Your task to perform on an android device: change the upload size in google photos Image 0: 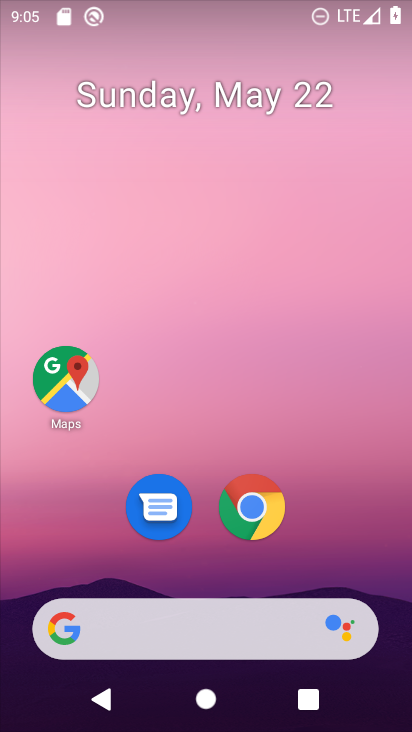
Step 0: drag from (214, 501) to (206, 31)
Your task to perform on an android device: change the upload size in google photos Image 1: 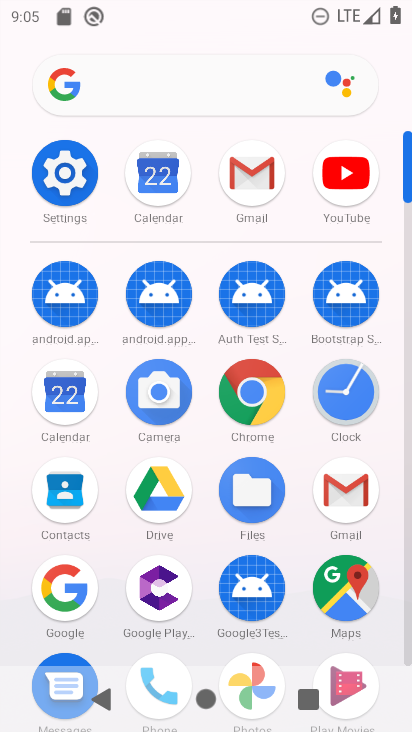
Step 1: click (274, 669)
Your task to perform on an android device: change the upload size in google photos Image 2: 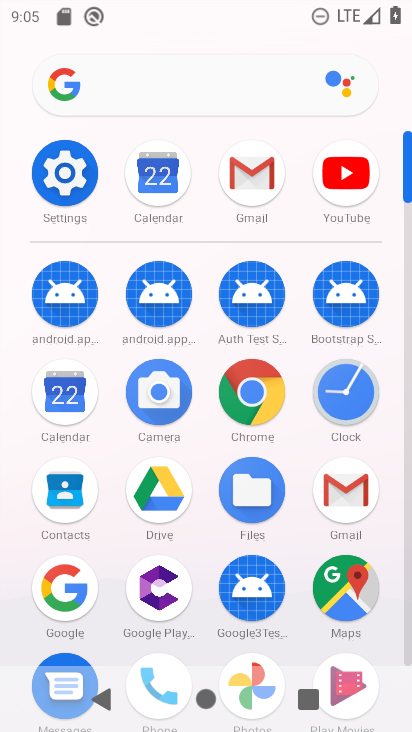
Step 2: click (252, 663)
Your task to perform on an android device: change the upload size in google photos Image 3: 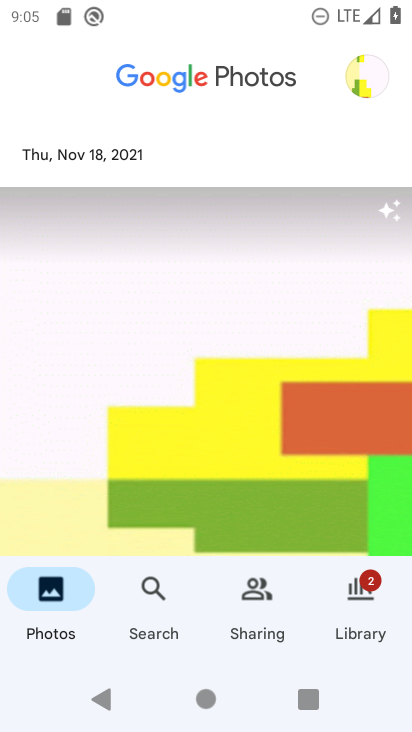
Step 3: click (376, 84)
Your task to perform on an android device: change the upload size in google photos Image 4: 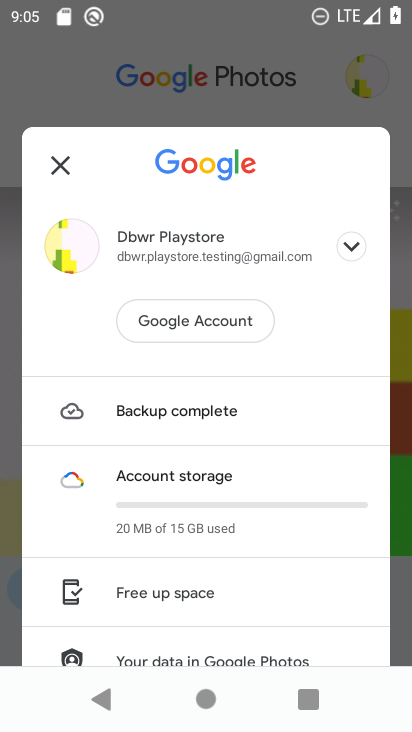
Step 4: drag from (232, 580) to (226, 22)
Your task to perform on an android device: change the upload size in google photos Image 5: 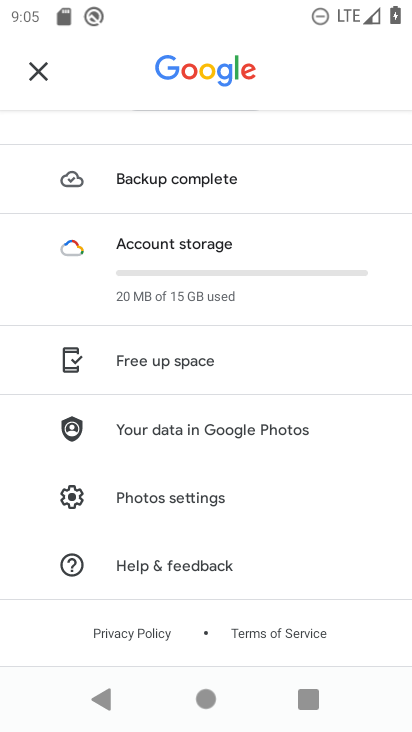
Step 5: click (228, 512)
Your task to perform on an android device: change the upload size in google photos Image 6: 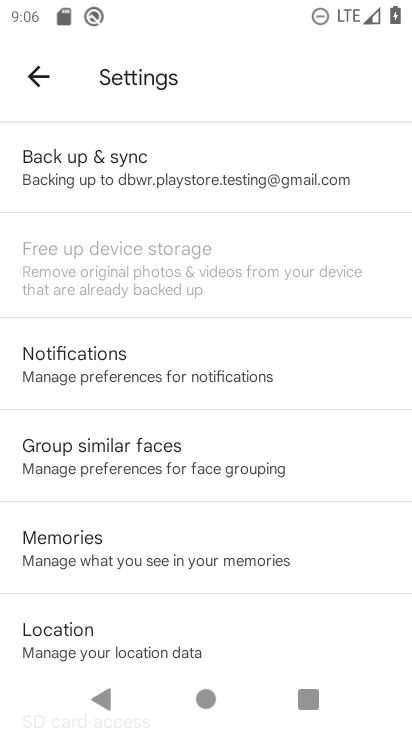
Step 6: drag from (177, 634) to (196, 20)
Your task to perform on an android device: change the upload size in google photos Image 7: 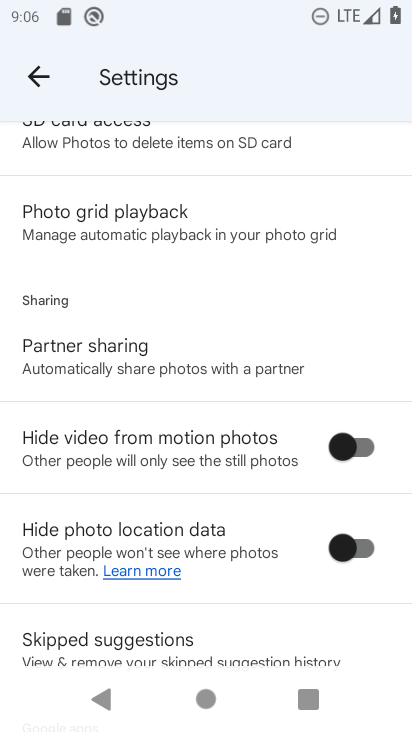
Step 7: drag from (349, 194) to (267, 663)
Your task to perform on an android device: change the upload size in google photos Image 8: 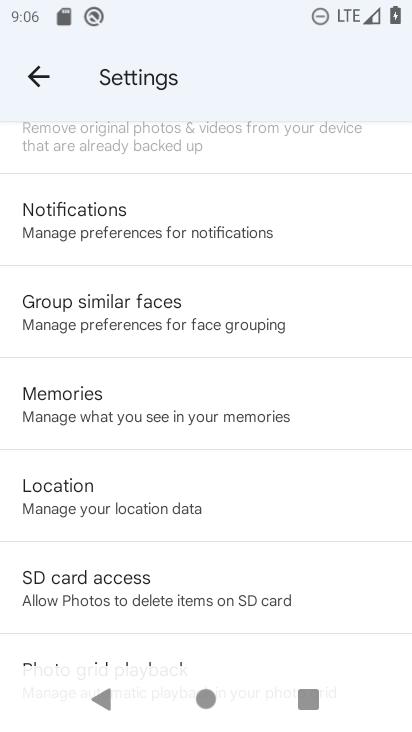
Step 8: drag from (232, 165) to (186, 627)
Your task to perform on an android device: change the upload size in google photos Image 9: 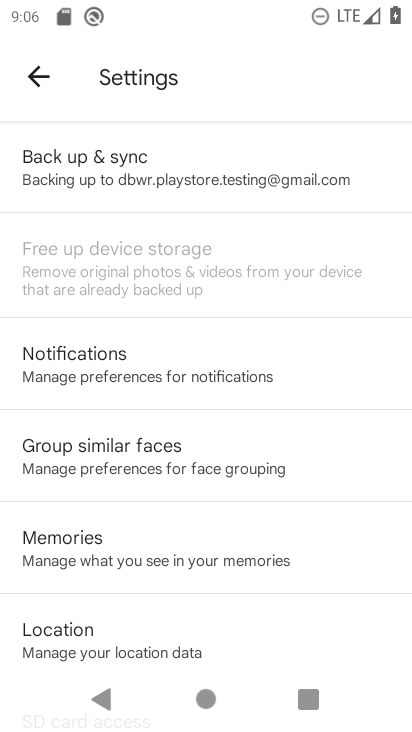
Step 9: click (273, 178)
Your task to perform on an android device: change the upload size in google photos Image 10: 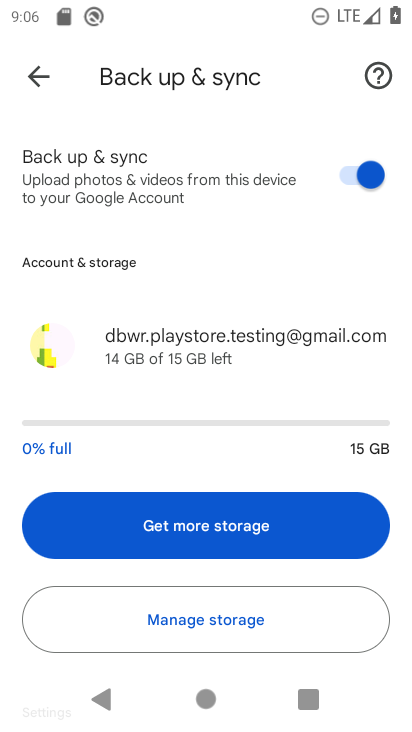
Step 10: drag from (210, 606) to (193, 116)
Your task to perform on an android device: change the upload size in google photos Image 11: 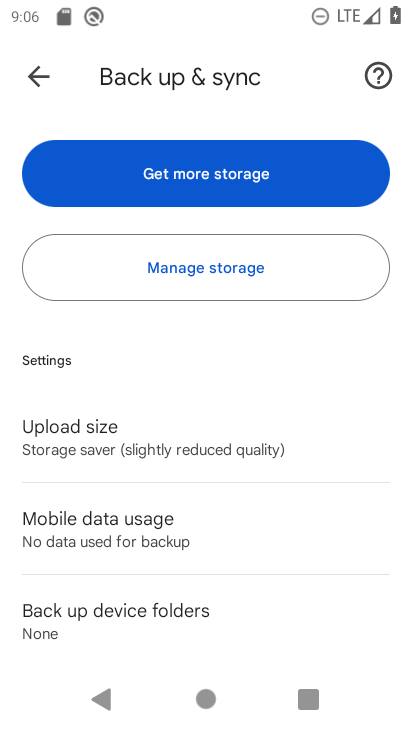
Step 11: click (207, 463)
Your task to perform on an android device: change the upload size in google photos Image 12: 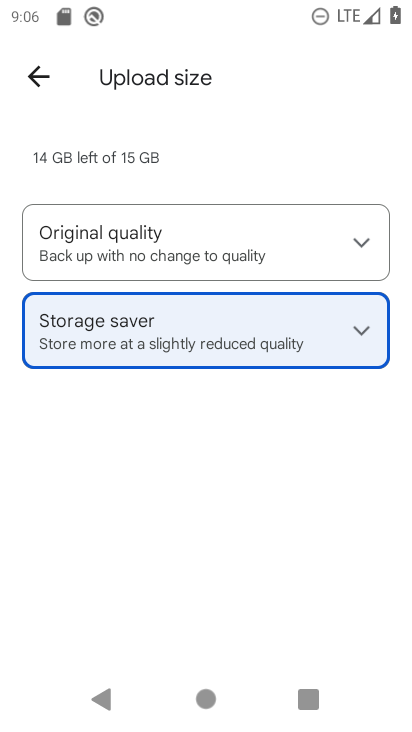
Step 12: click (261, 220)
Your task to perform on an android device: change the upload size in google photos Image 13: 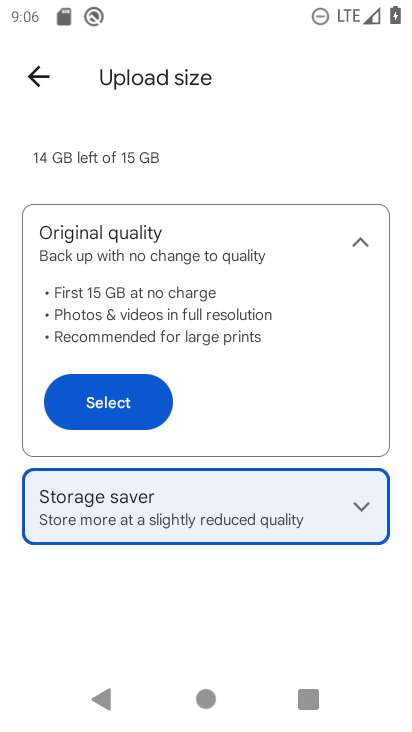
Step 13: click (68, 397)
Your task to perform on an android device: change the upload size in google photos Image 14: 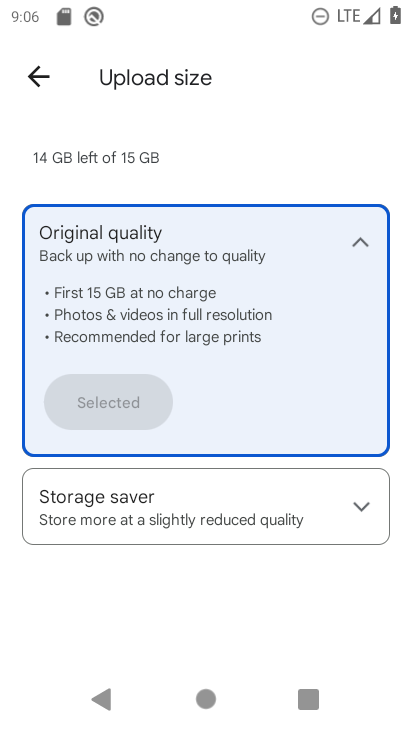
Step 14: task complete